Your task to perform on an android device: turn on priority inbox in the gmail app Image 0: 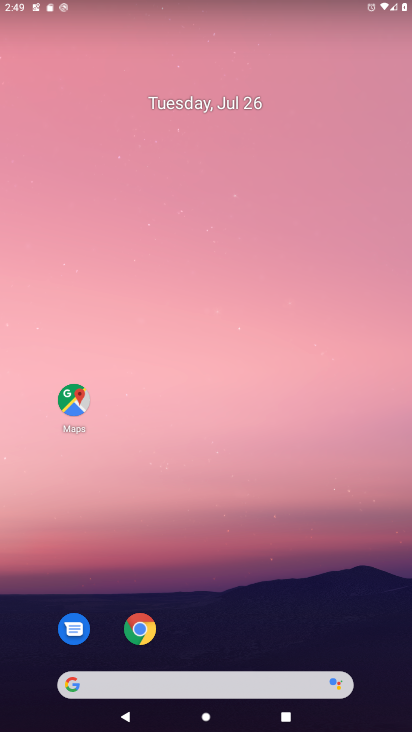
Step 0: drag from (195, 610) to (171, 267)
Your task to perform on an android device: turn on priority inbox in the gmail app Image 1: 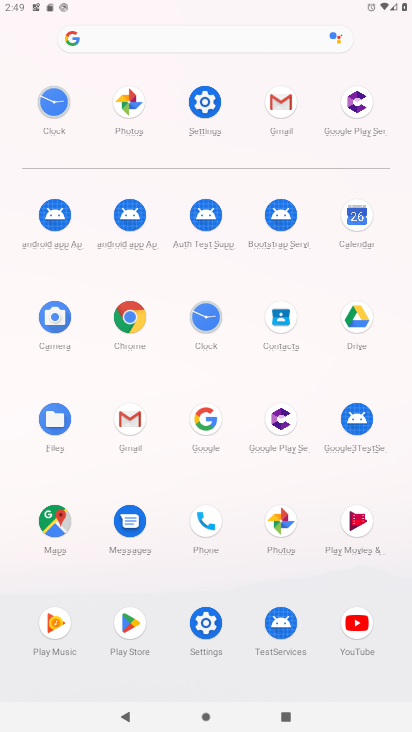
Step 1: click (277, 112)
Your task to perform on an android device: turn on priority inbox in the gmail app Image 2: 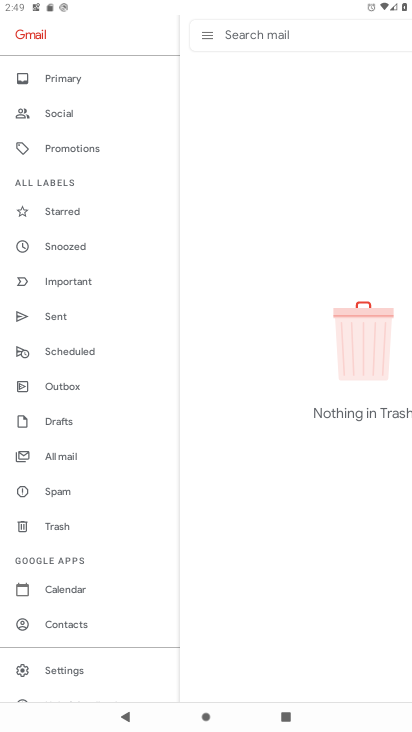
Step 2: click (68, 661)
Your task to perform on an android device: turn on priority inbox in the gmail app Image 3: 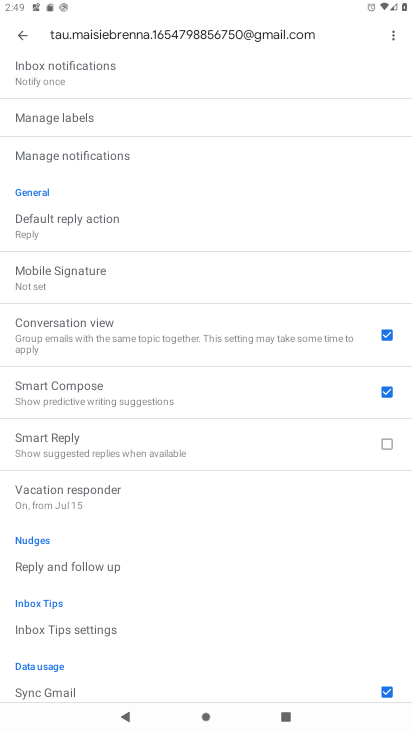
Step 3: click (107, 239)
Your task to perform on an android device: turn on priority inbox in the gmail app Image 4: 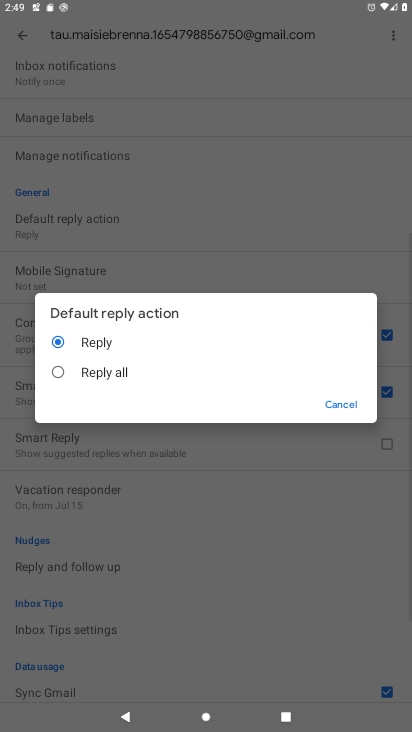
Step 4: click (129, 189)
Your task to perform on an android device: turn on priority inbox in the gmail app Image 5: 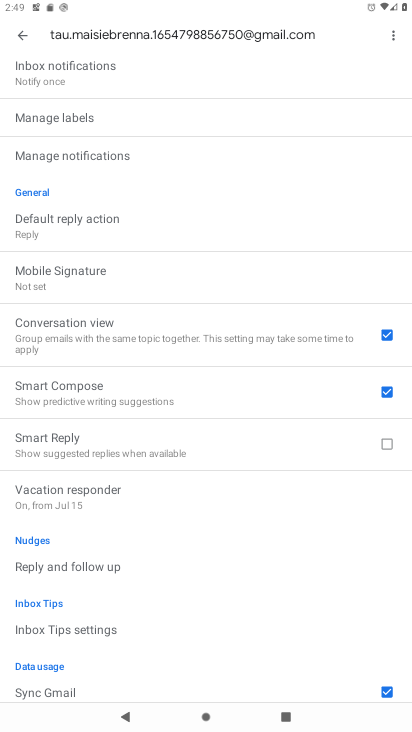
Step 5: click (78, 85)
Your task to perform on an android device: turn on priority inbox in the gmail app Image 6: 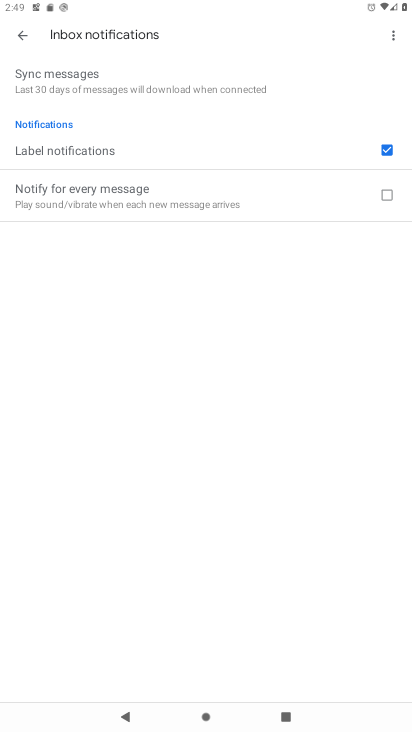
Step 6: click (33, 41)
Your task to perform on an android device: turn on priority inbox in the gmail app Image 7: 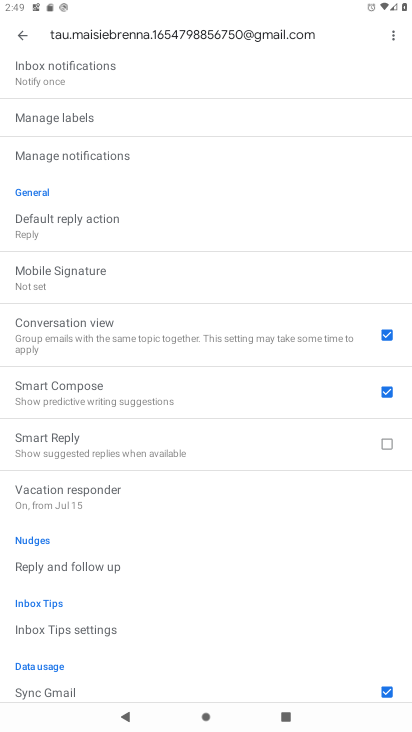
Step 7: drag from (146, 205) to (186, 432)
Your task to perform on an android device: turn on priority inbox in the gmail app Image 8: 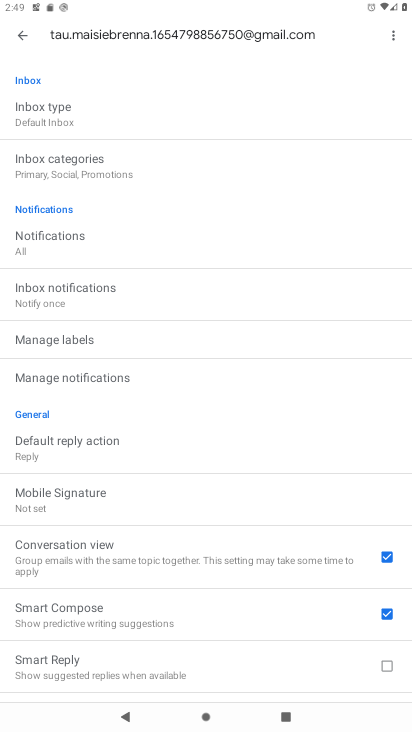
Step 8: click (113, 137)
Your task to perform on an android device: turn on priority inbox in the gmail app Image 9: 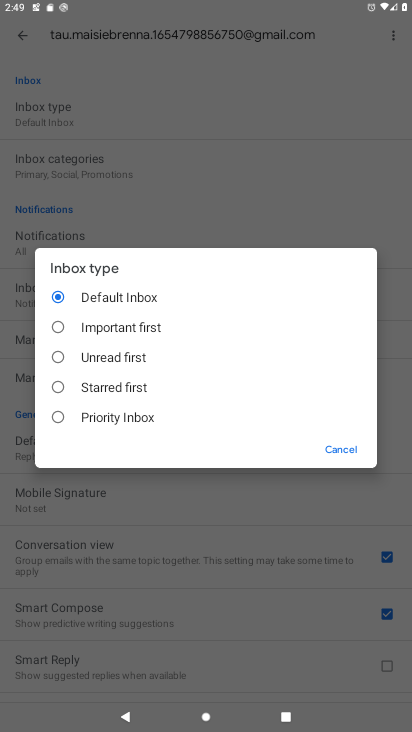
Step 9: click (122, 415)
Your task to perform on an android device: turn on priority inbox in the gmail app Image 10: 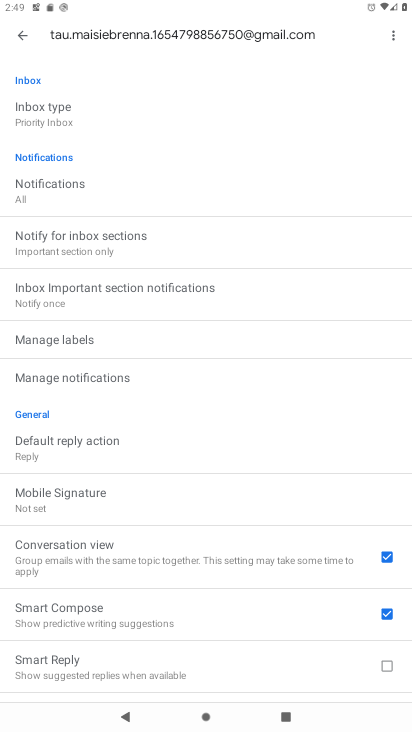
Step 10: task complete